Your task to perform on an android device: change the clock style Image 0: 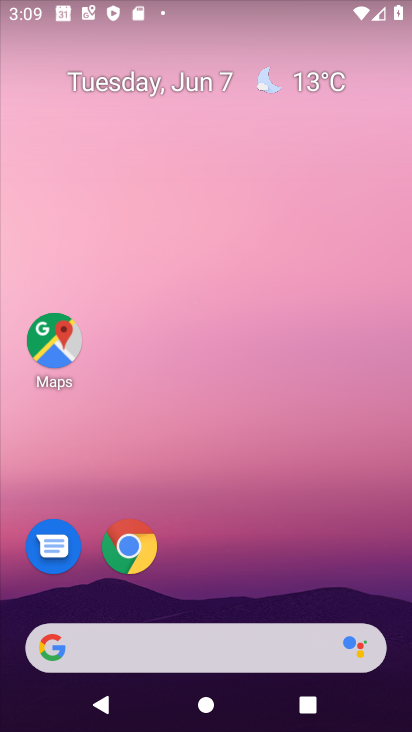
Step 0: drag from (39, 497) to (216, 202)
Your task to perform on an android device: change the clock style Image 1: 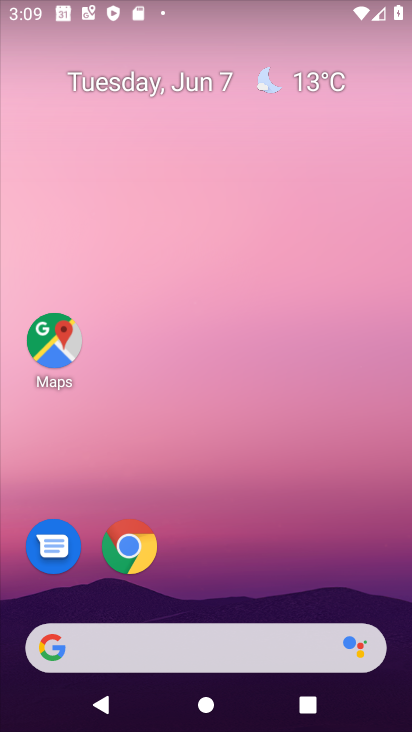
Step 1: drag from (28, 572) to (261, 134)
Your task to perform on an android device: change the clock style Image 2: 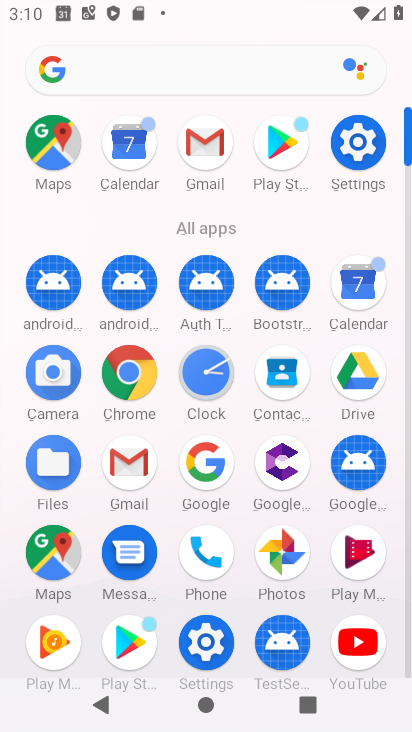
Step 2: click (197, 390)
Your task to perform on an android device: change the clock style Image 3: 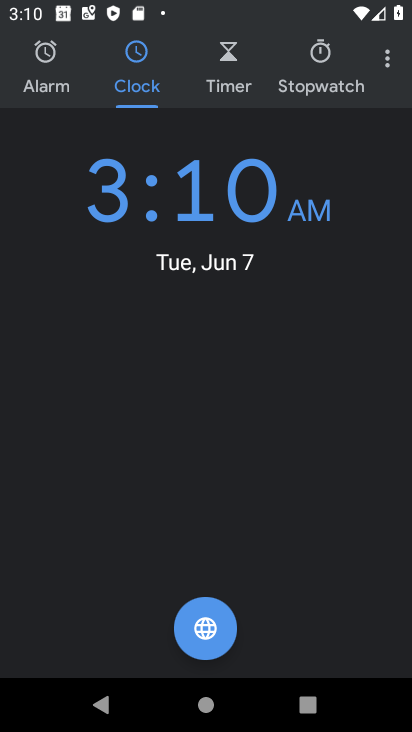
Step 3: click (389, 59)
Your task to perform on an android device: change the clock style Image 4: 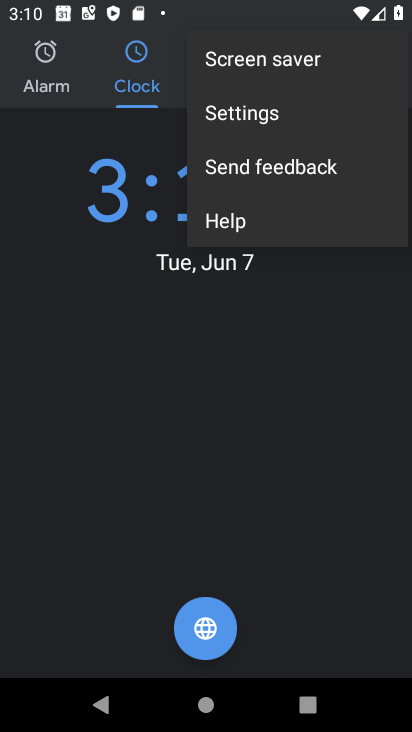
Step 4: click (297, 111)
Your task to perform on an android device: change the clock style Image 5: 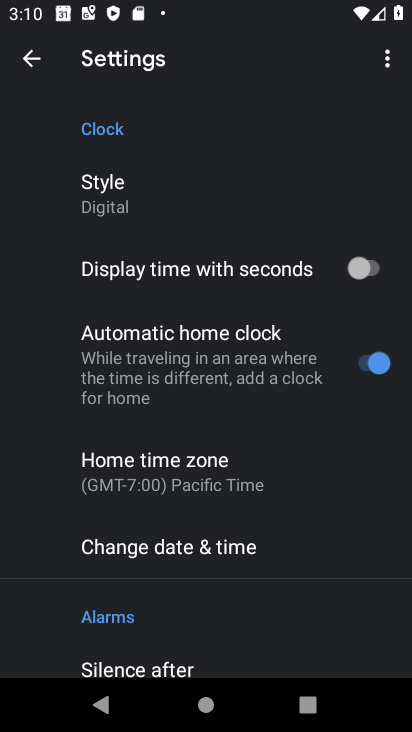
Step 5: click (178, 198)
Your task to perform on an android device: change the clock style Image 6: 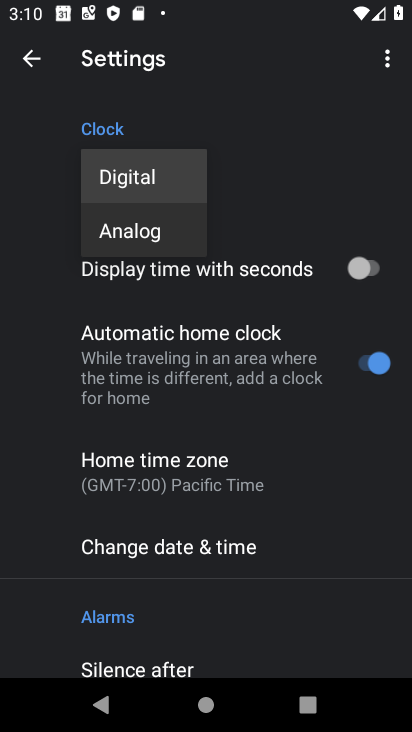
Step 6: click (152, 227)
Your task to perform on an android device: change the clock style Image 7: 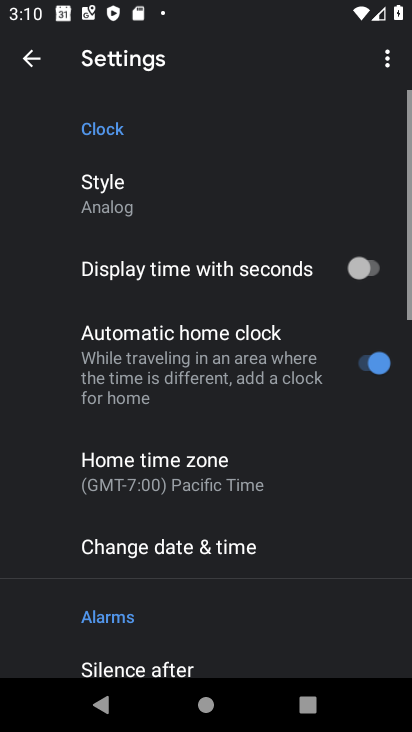
Step 7: task complete